Your task to perform on an android device: Is it going to rain this weekend? Image 0: 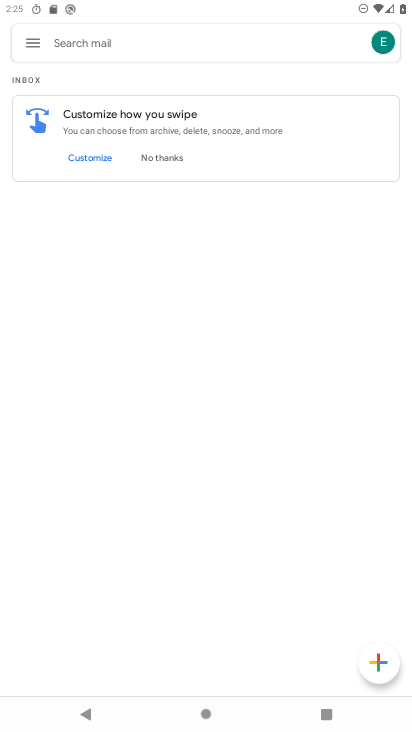
Step 0: press home button
Your task to perform on an android device: Is it going to rain this weekend? Image 1: 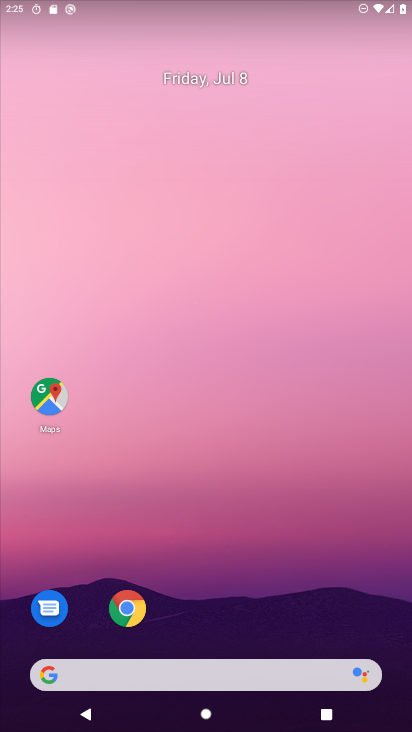
Step 1: drag from (226, 713) to (193, 94)
Your task to perform on an android device: Is it going to rain this weekend? Image 2: 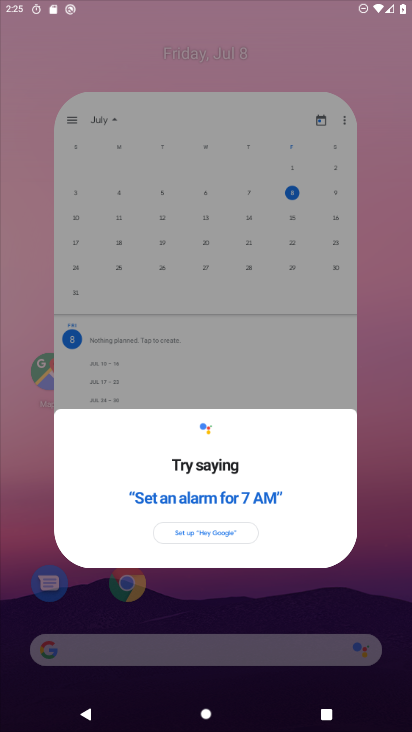
Step 2: drag from (262, 715) to (243, 64)
Your task to perform on an android device: Is it going to rain this weekend? Image 3: 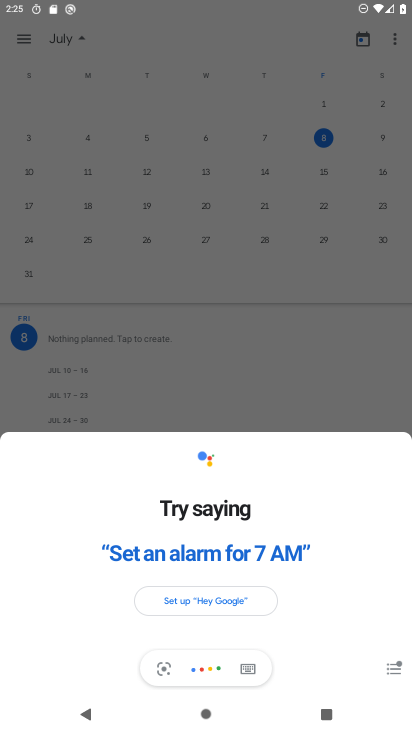
Step 3: press home button
Your task to perform on an android device: Is it going to rain this weekend? Image 4: 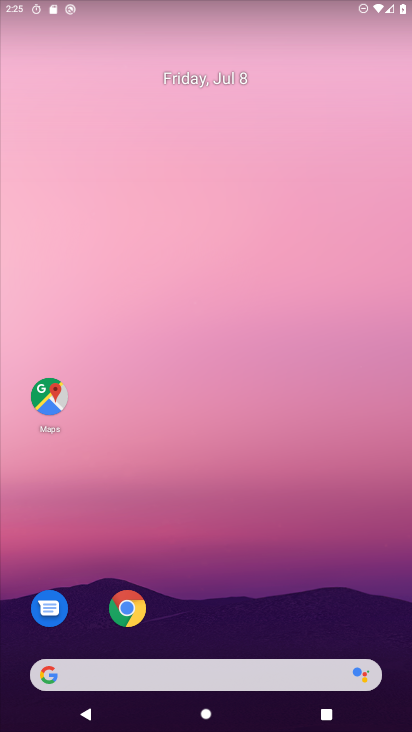
Step 4: drag from (226, 724) to (211, 32)
Your task to perform on an android device: Is it going to rain this weekend? Image 5: 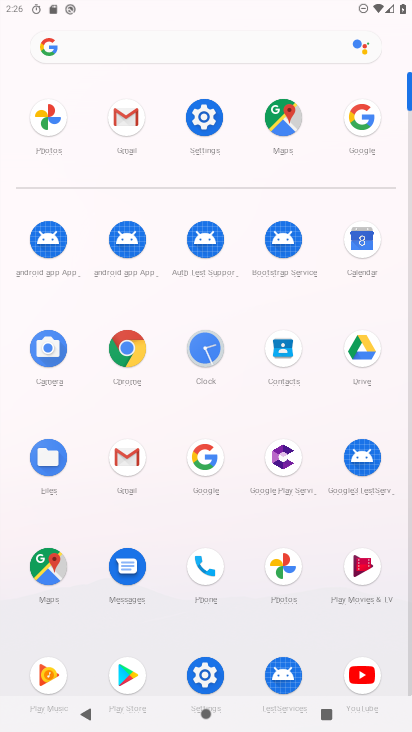
Step 5: click (201, 458)
Your task to perform on an android device: Is it going to rain this weekend? Image 6: 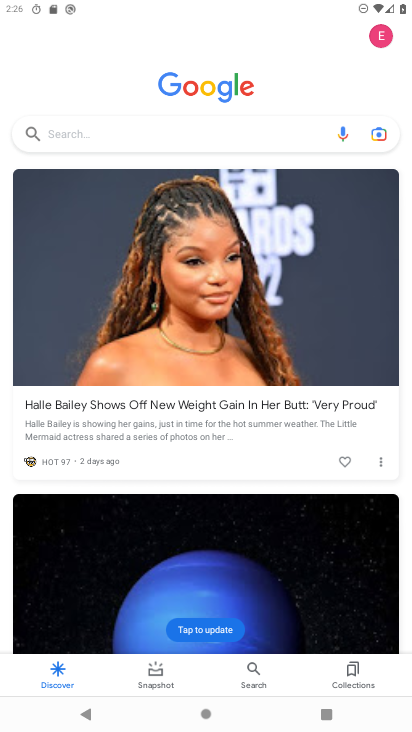
Step 6: click (151, 133)
Your task to perform on an android device: Is it going to rain this weekend? Image 7: 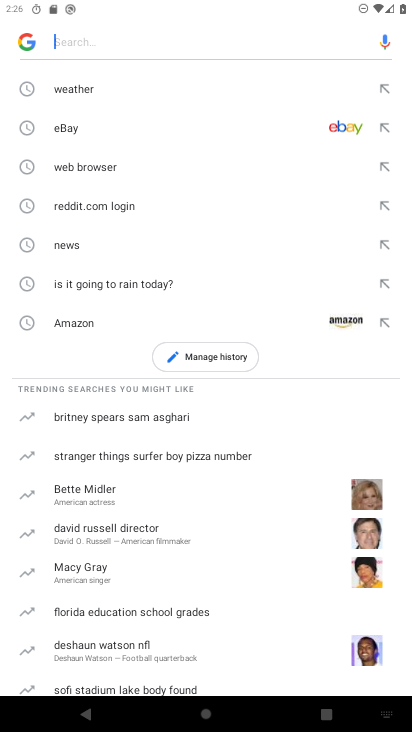
Step 7: click (80, 82)
Your task to perform on an android device: Is it going to rain this weekend? Image 8: 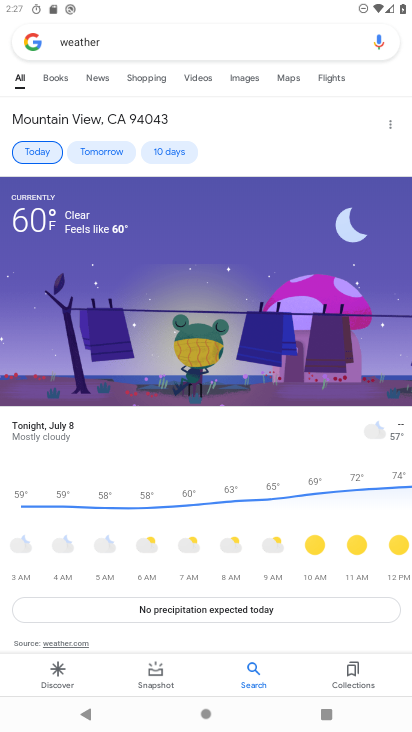
Step 8: click (165, 149)
Your task to perform on an android device: Is it going to rain this weekend? Image 9: 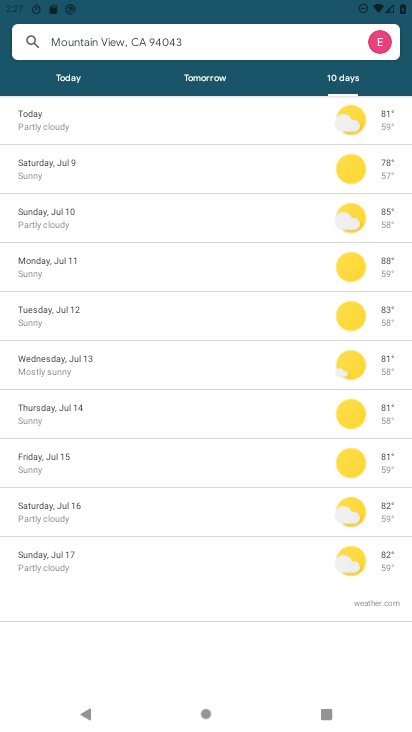
Step 9: click (110, 174)
Your task to perform on an android device: Is it going to rain this weekend? Image 10: 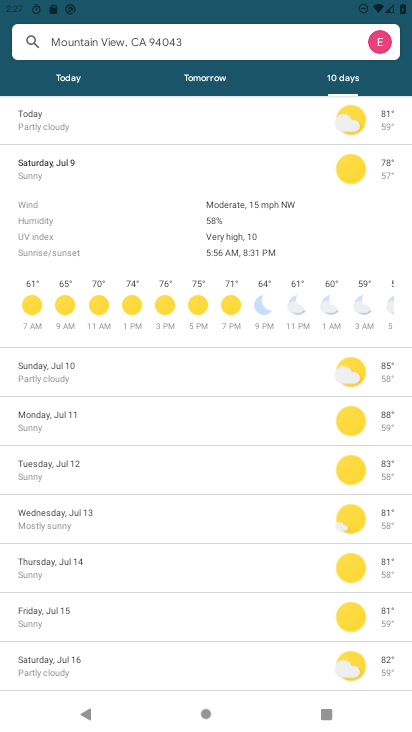
Step 10: task complete